Your task to perform on an android device: change notification settings in the gmail app Image 0: 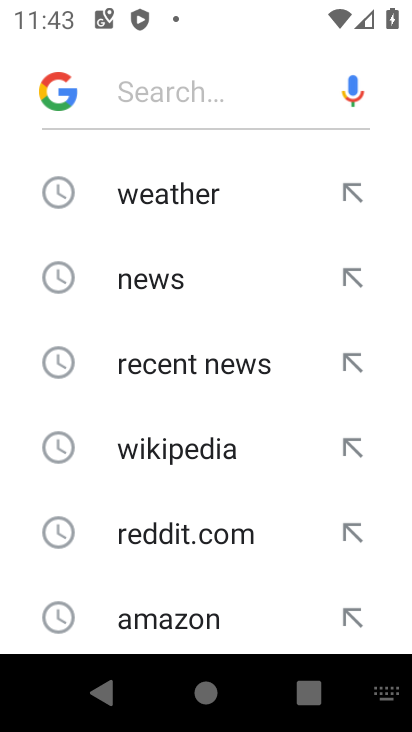
Step 0: press home button
Your task to perform on an android device: change notification settings in the gmail app Image 1: 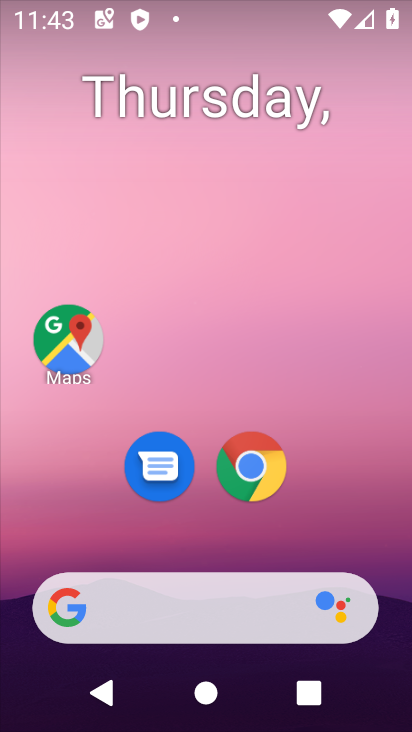
Step 1: drag from (232, 540) to (261, 41)
Your task to perform on an android device: change notification settings in the gmail app Image 2: 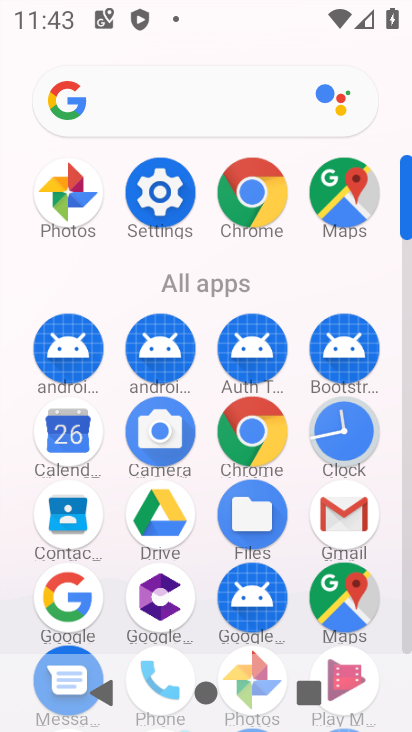
Step 2: click (345, 513)
Your task to perform on an android device: change notification settings in the gmail app Image 3: 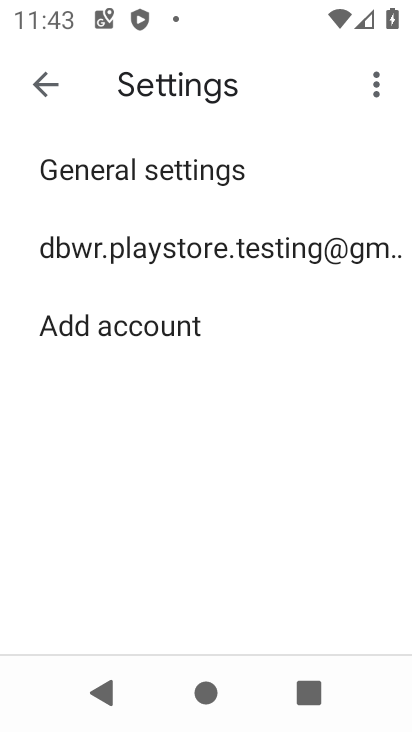
Step 3: click (230, 258)
Your task to perform on an android device: change notification settings in the gmail app Image 4: 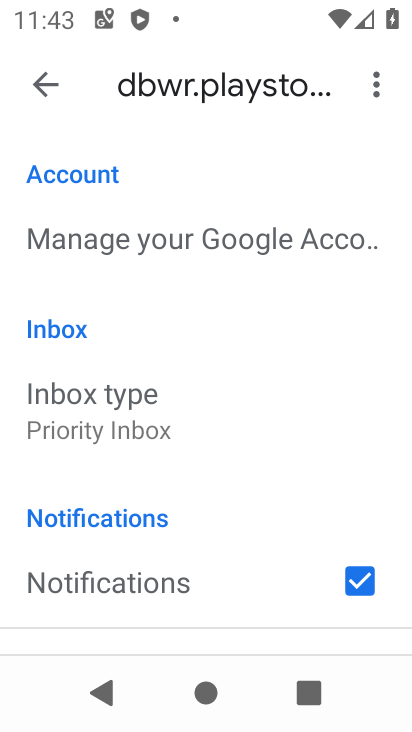
Step 4: drag from (164, 554) to (193, 131)
Your task to perform on an android device: change notification settings in the gmail app Image 5: 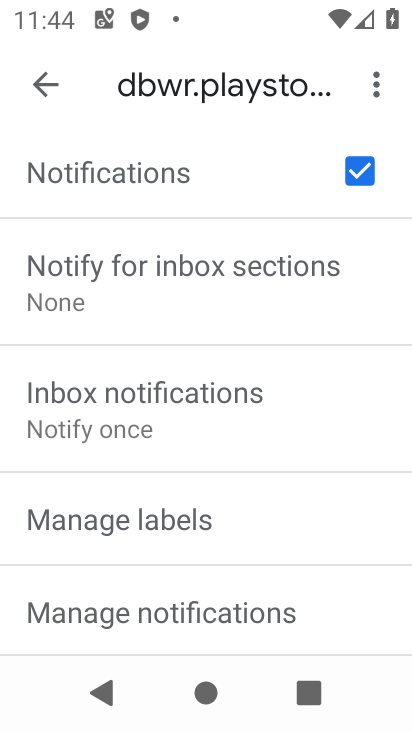
Step 5: drag from (184, 582) to (229, 179)
Your task to perform on an android device: change notification settings in the gmail app Image 6: 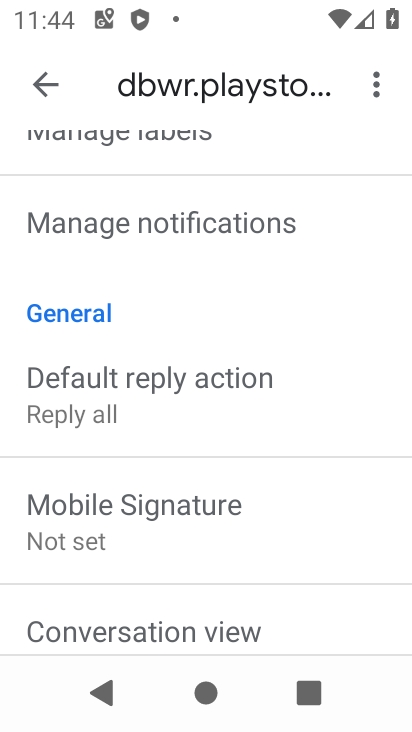
Step 6: drag from (210, 258) to (186, 713)
Your task to perform on an android device: change notification settings in the gmail app Image 7: 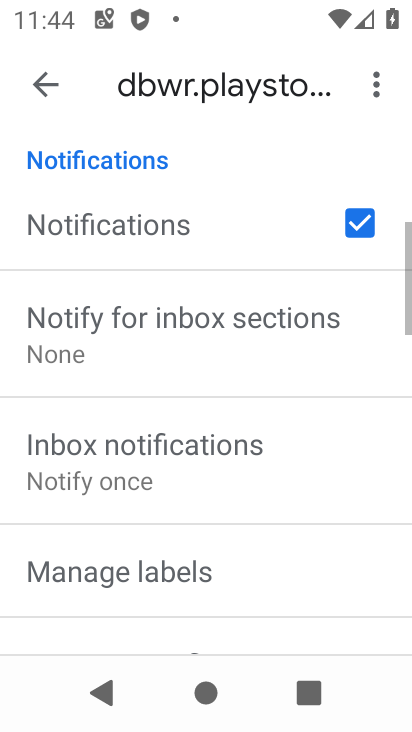
Step 7: drag from (215, 402) to (187, 731)
Your task to perform on an android device: change notification settings in the gmail app Image 8: 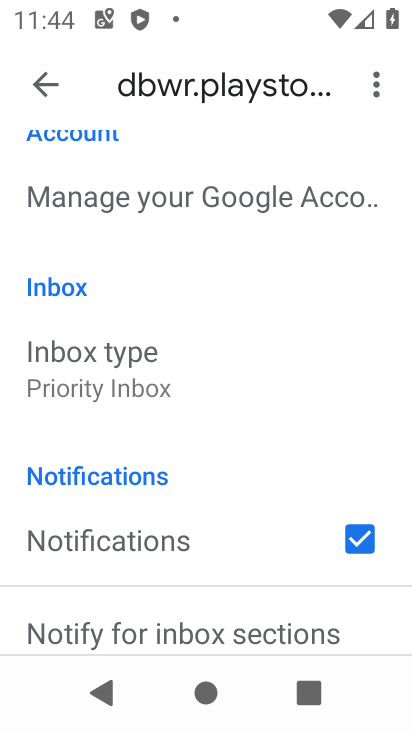
Step 8: drag from (133, 388) to (108, 670)
Your task to perform on an android device: change notification settings in the gmail app Image 9: 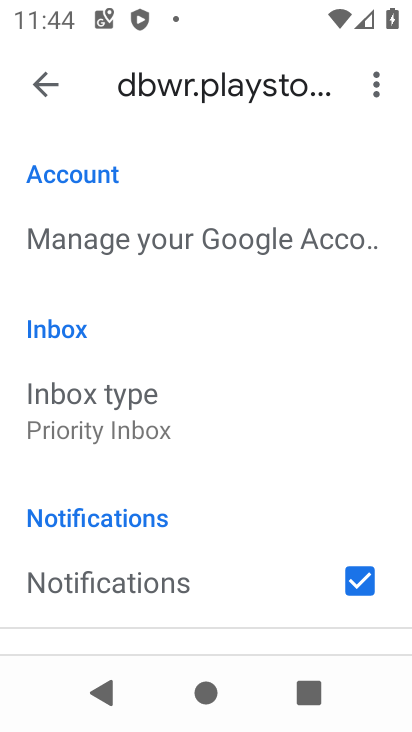
Step 9: click (354, 585)
Your task to perform on an android device: change notification settings in the gmail app Image 10: 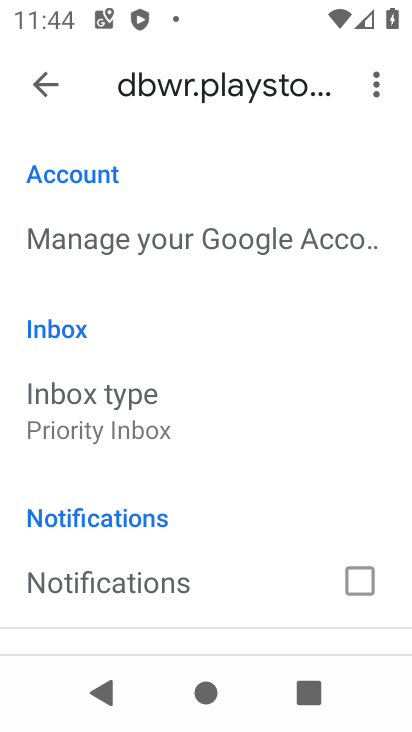
Step 10: task complete